Your task to perform on an android device: toggle notifications settings in the gmail app Image 0: 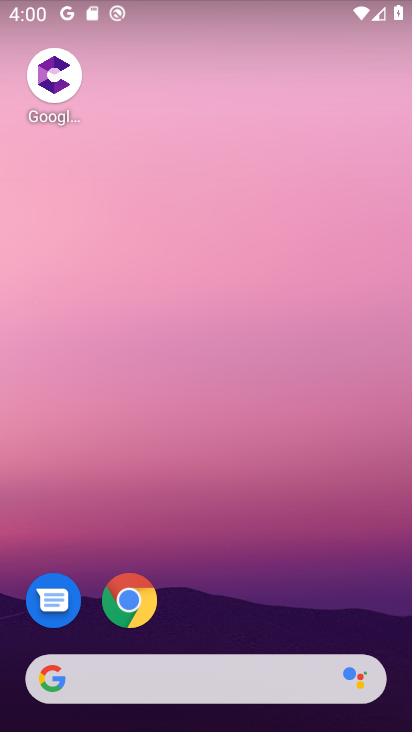
Step 0: drag from (380, 607) to (324, 91)
Your task to perform on an android device: toggle notifications settings in the gmail app Image 1: 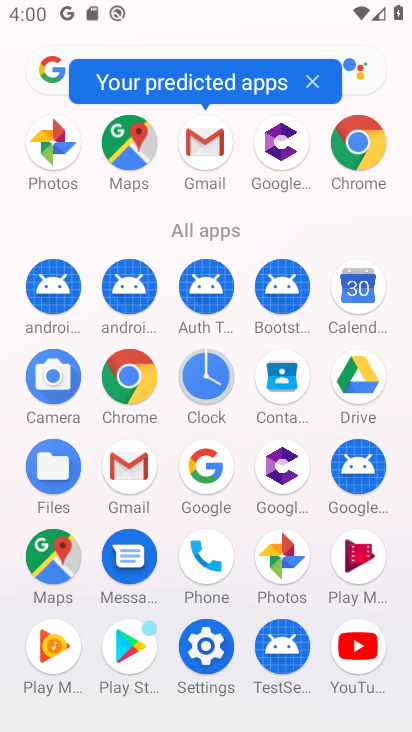
Step 1: click (126, 462)
Your task to perform on an android device: toggle notifications settings in the gmail app Image 2: 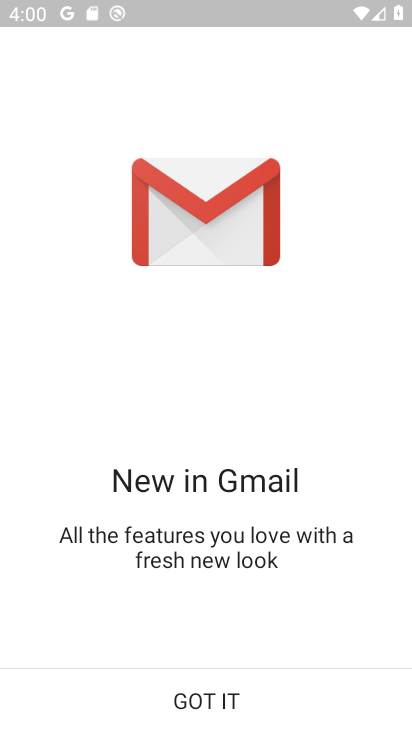
Step 2: click (201, 691)
Your task to perform on an android device: toggle notifications settings in the gmail app Image 3: 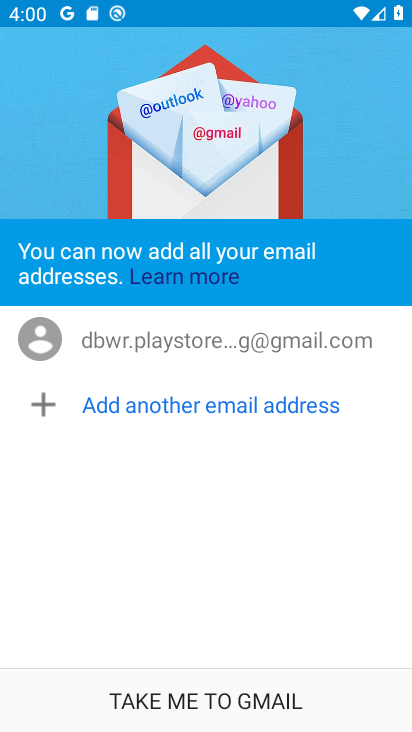
Step 3: click (201, 691)
Your task to perform on an android device: toggle notifications settings in the gmail app Image 4: 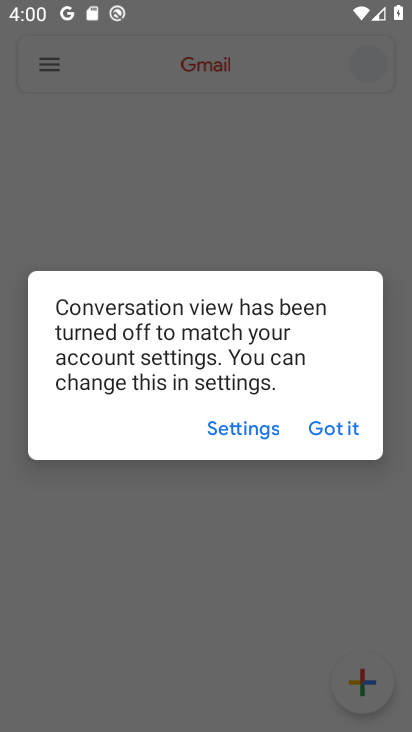
Step 4: click (350, 424)
Your task to perform on an android device: toggle notifications settings in the gmail app Image 5: 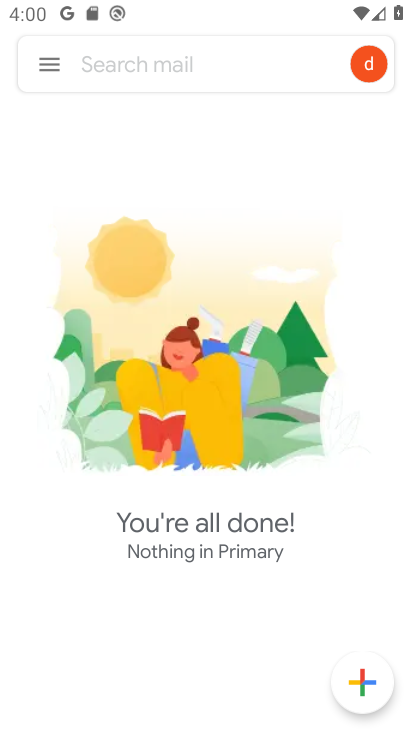
Step 5: click (50, 64)
Your task to perform on an android device: toggle notifications settings in the gmail app Image 6: 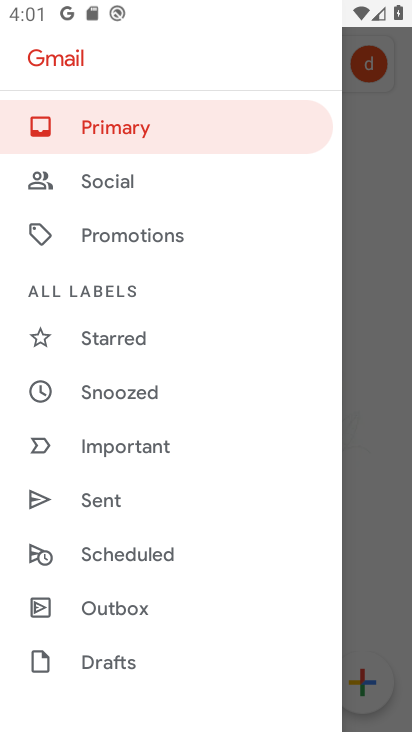
Step 6: drag from (250, 638) to (215, 92)
Your task to perform on an android device: toggle notifications settings in the gmail app Image 7: 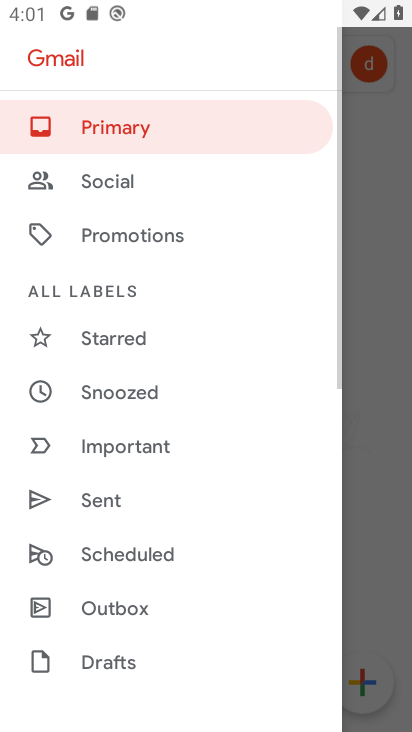
Step 7: drag from (222, 611) to (254, 103)
Your task to perform on an android device: toggle notifications settings in the gmail app Image 8: 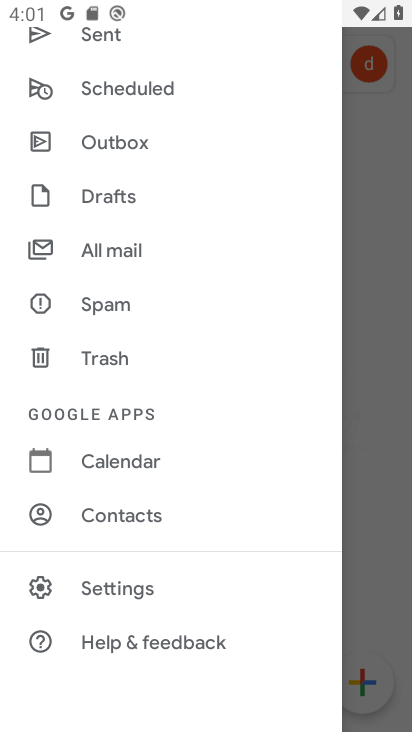
Step 8: click (128, 590)
Your task to perform on an android device: toggle notifications settings in the gmail app Image 9: 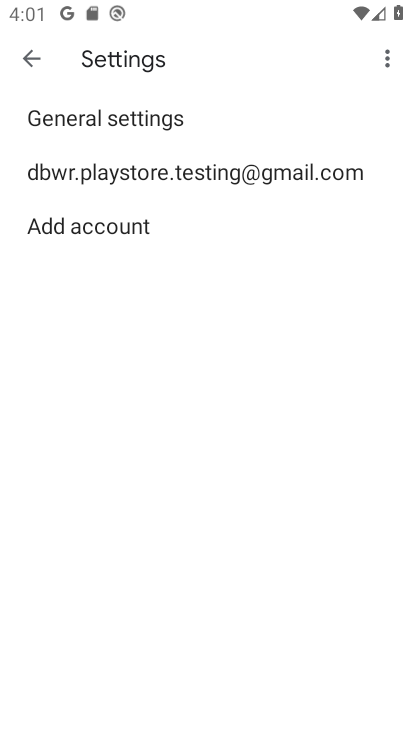
Step 9: click (156, 171)
Your task to perform on an android device: toggle notifications settings in the gmail app Image 10: 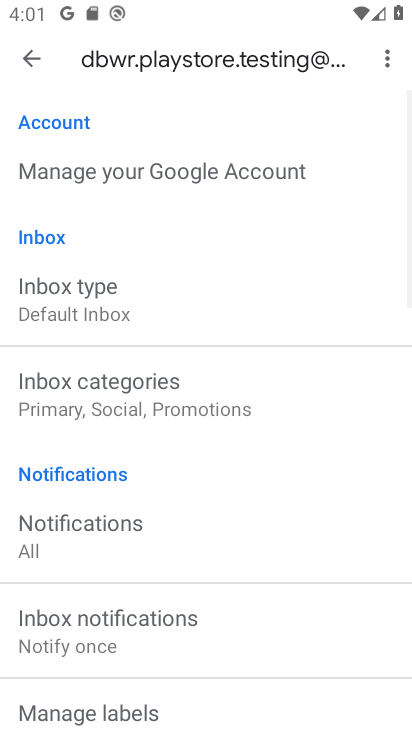
Step 10: drag from (222, 538) to (239, 113)
Your task to perform on an android device: toggle notifications settings in the gmail app Image 11: 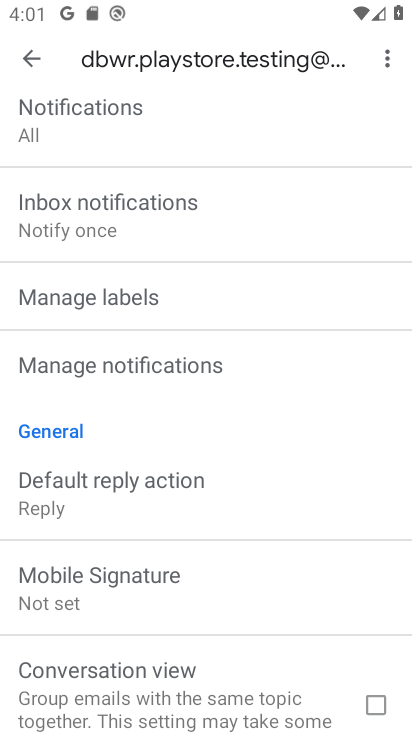
Step 11: click (109, 359)
Your task to perform on an android device: toggle notifications settings in the gmail app Image 12: 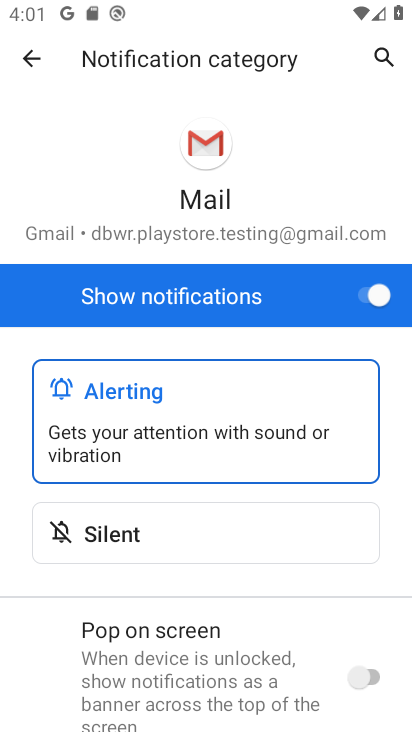
Step 12: click (367, 281)
Your task to perform on an android device: toggle notifications settings in the gmail app Image 13: 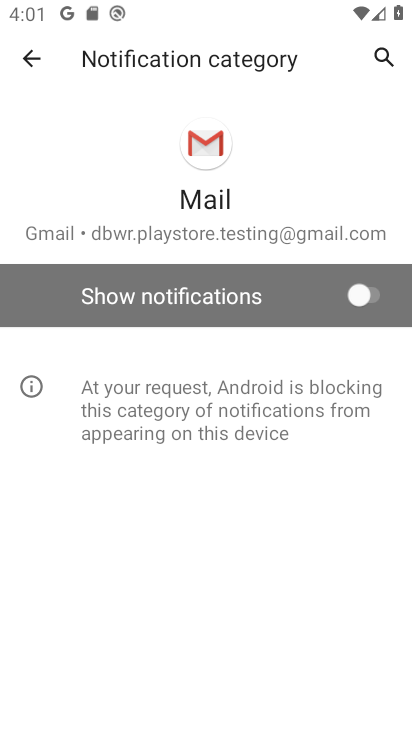
Step 13: task complete